Your task to perform on an android device: toggle improve location accuracy Image 0: 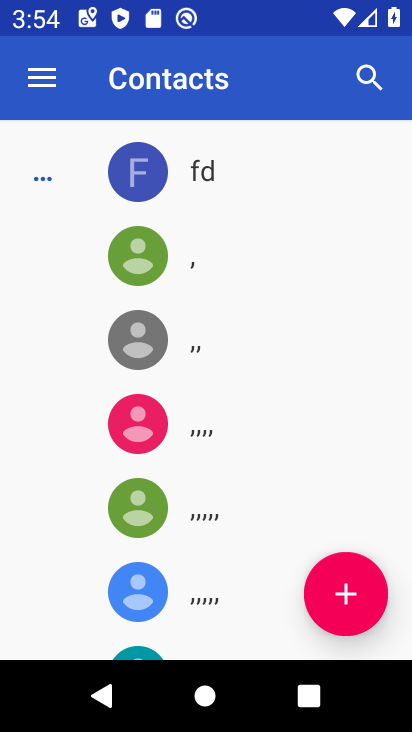
Step 0: press home button
Your task to perform on an android device: toggle improve location accuracy Image 1: 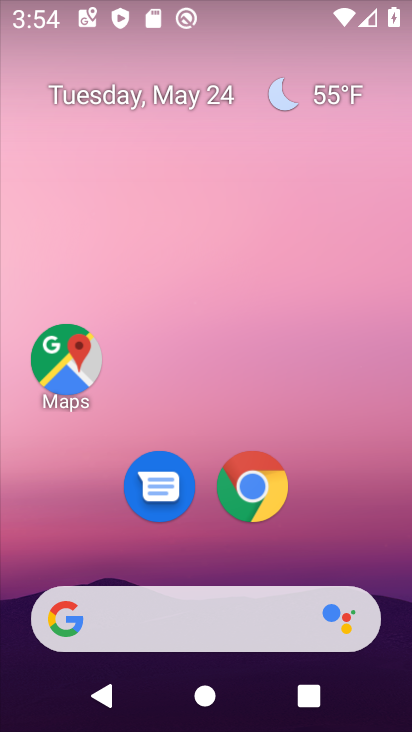
Step 1: drag from (324, 520) to (296, 256)
Your task to perform on an android device: toggle improve location accuracy Image 2: 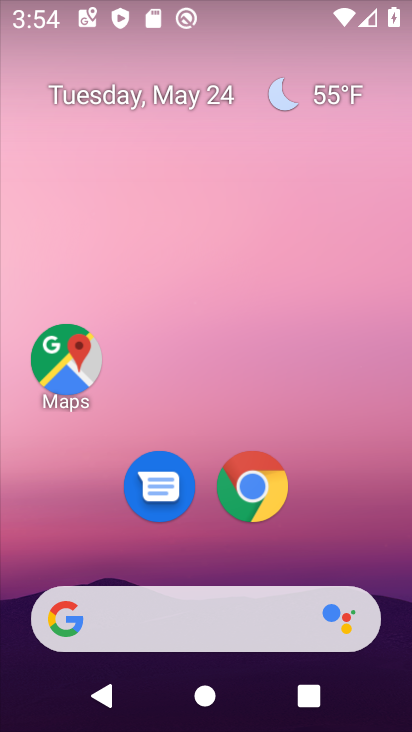
Step 2: drag from (333, 552) to (298, 190)
Your task to perform on an android device: toggle improve location accuracy Image 3: 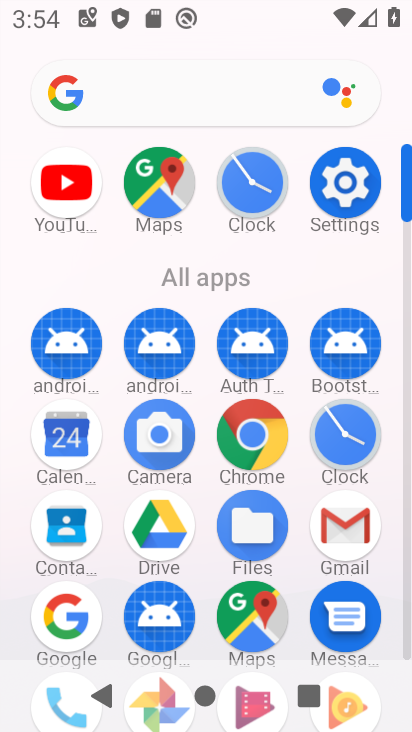
Step 3: click (352, 198)
Your task to perform on an android device: toggle improve location accuracy Image 4: 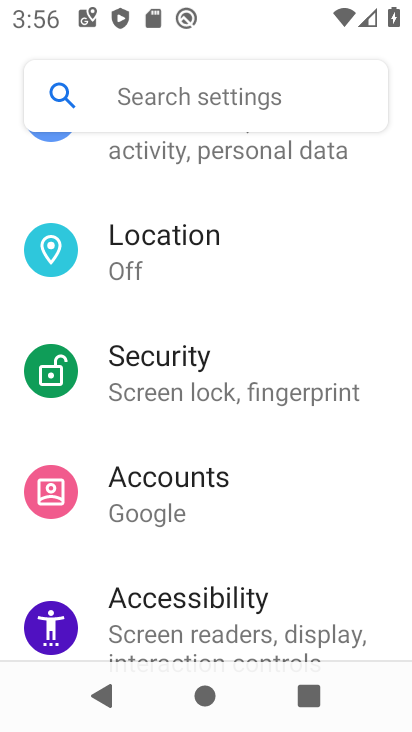
Step 4: drag from (233, 528) to (181, 211)
Your task to perform on an android device: toggle improve location accuracy Image 5: 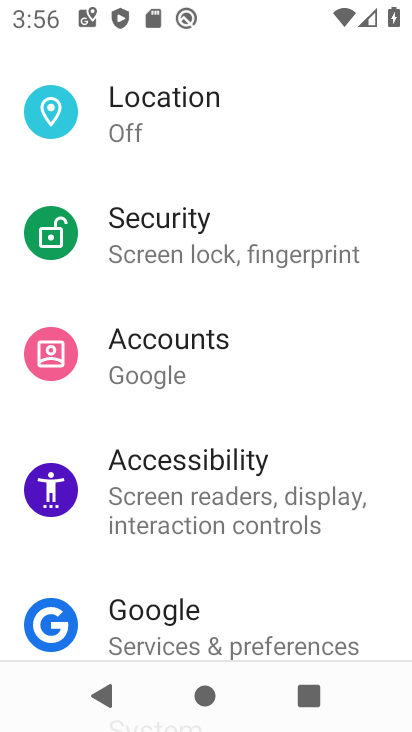
Step 5: drag from (204, 350) to (235, 681)
Your task to perform on an android device: toggle improve location accuracy Image 6: 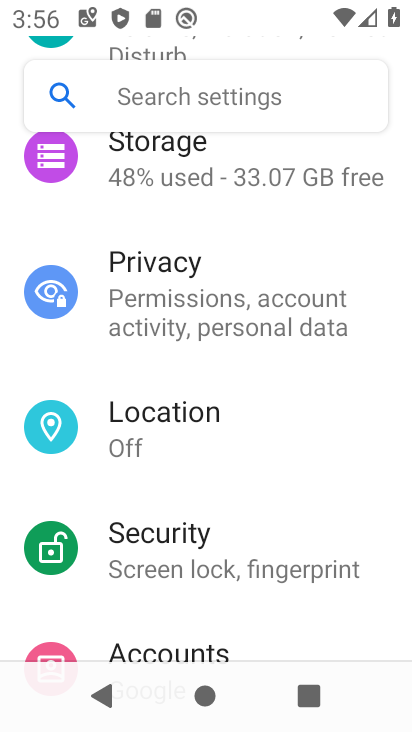
Step 6: click (162, 399)
Your task to perform on an android device: toggle improve location accuracy Image 7: 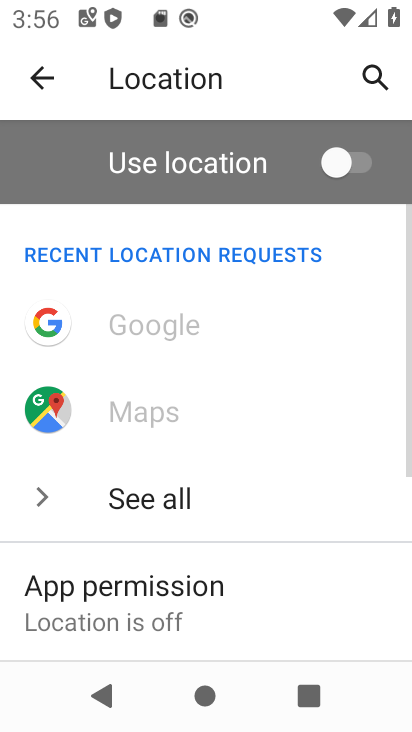
Step 7: drag from (184, 588) to (147, 420)
Your task to perform on an android device: toggle improve location accuracy Image 8: 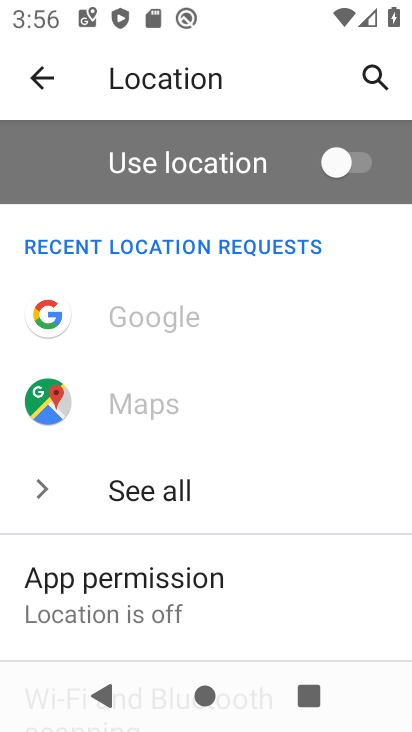
Step 8: drag from (220, 573) to (191, 420)
Your task to perform on an android device: toggle improve location accuracy Image 9: 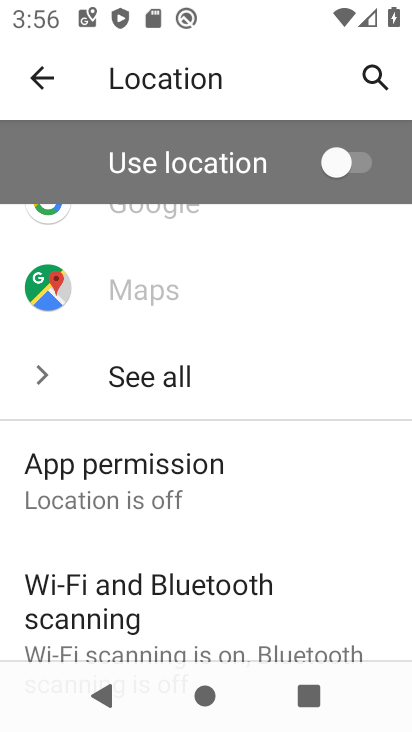
Step 9: drag from (124, 432) to (99, 261)
Your task to perform on an android device: toggle improve location accuracy Image 10: 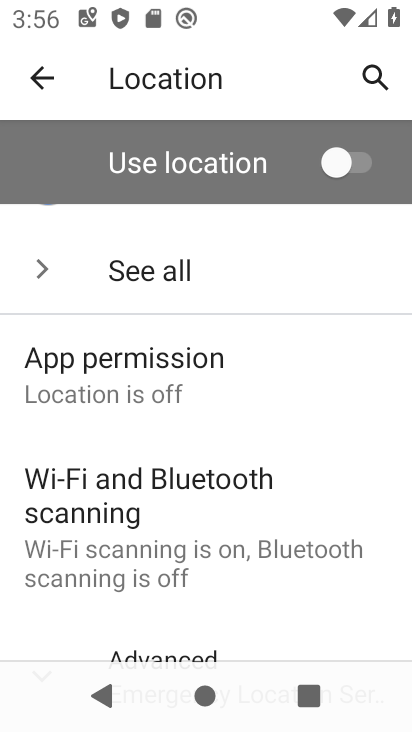
Step 10: drag from (250, 584) to (197, 295)
Your task to perform on an android device: toggle improve location accuracy Image 11: 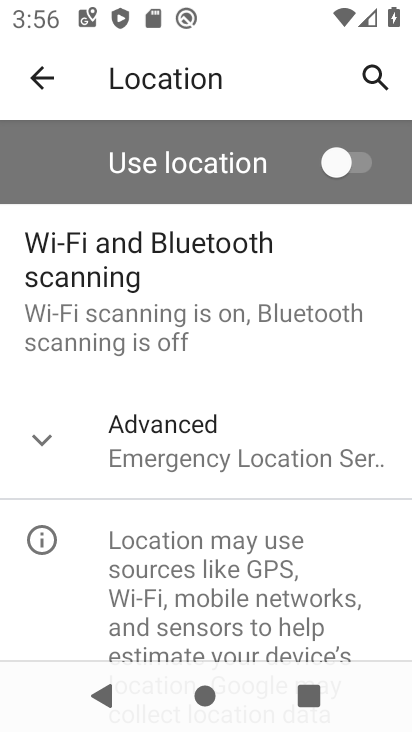
Step 11: click (149, 460)
Your task to perform on an android device: toggle improve location accuracy Image 12: 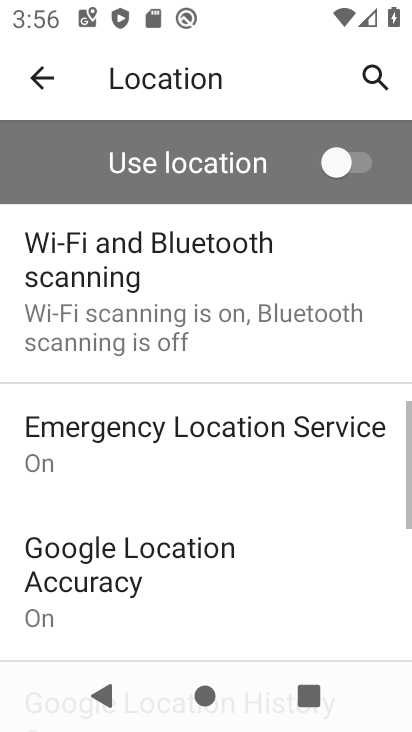
Step 12: drag from (205, 576) to (174, 370)
Your task to perform on an android device: toggle improve location accuracy Image 13: 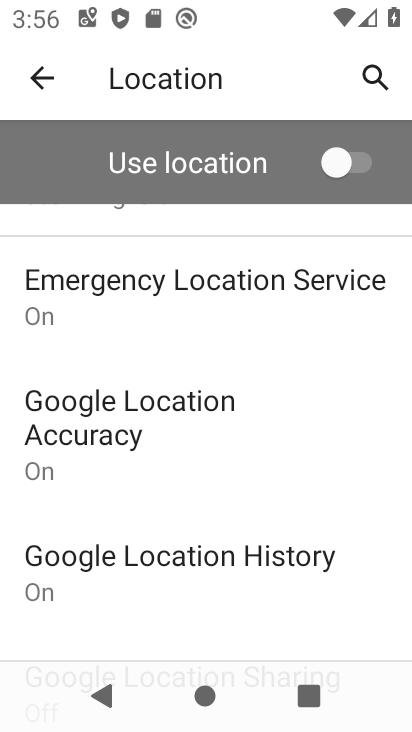
Step 13: click (61, 431)
Your task to perform on an android device: toggle improve location accuracy Image 14: 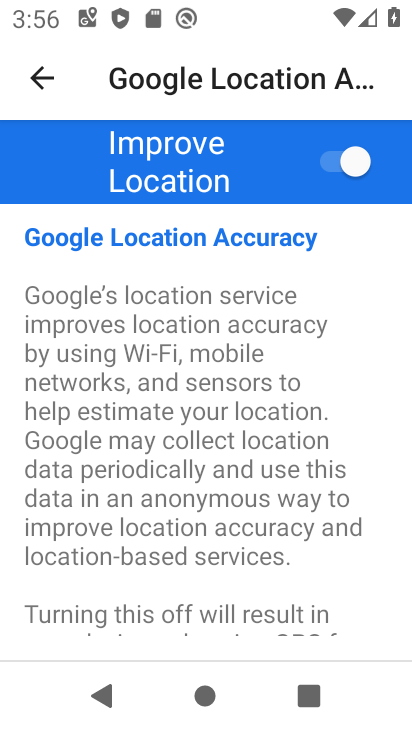
Step 14: click (354, 163)
Your task to perform on an android device: toggle improve location accuracy Image 15: 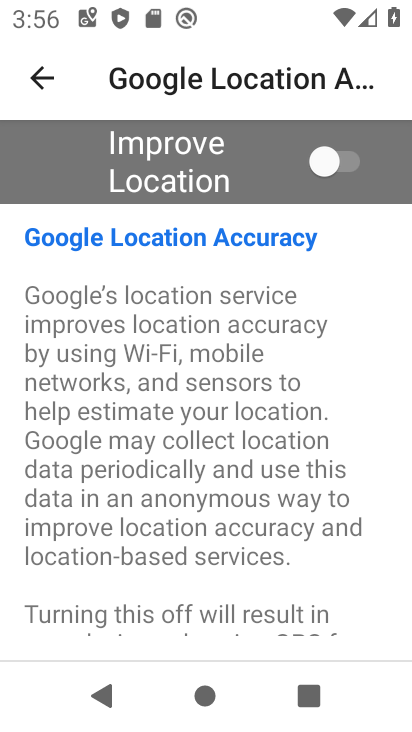
Step 15: task complete